Your task to perform on an android device: turn off wifi Image 0: 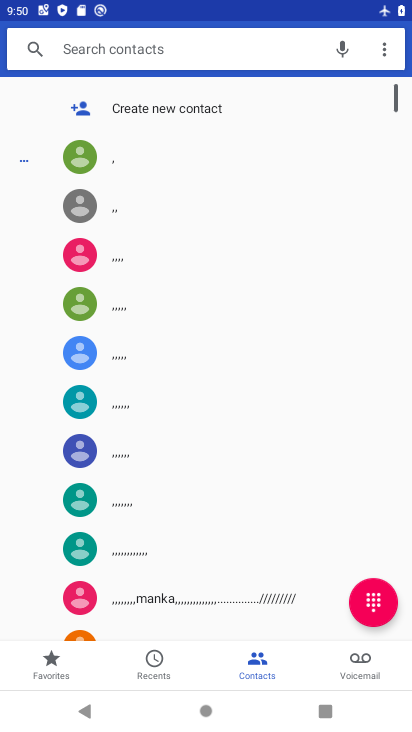
Step 0: press home button
Your task to perform on an android device: turn off wifi Image 1: 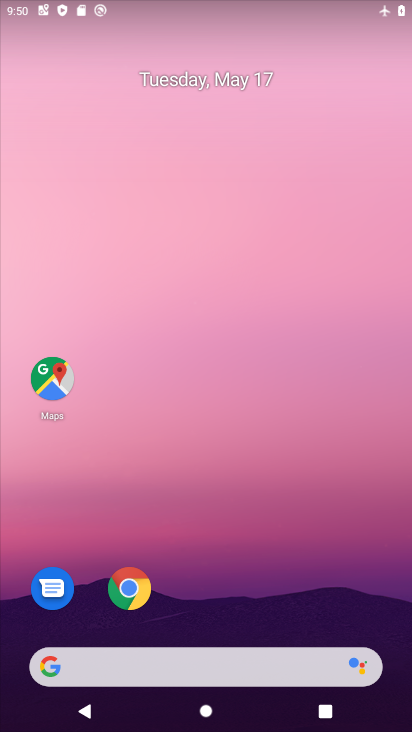
Step 1: drag from (211, 637) to (336, 24)
Your task to perform on an android device: turn off wifi Image 2: 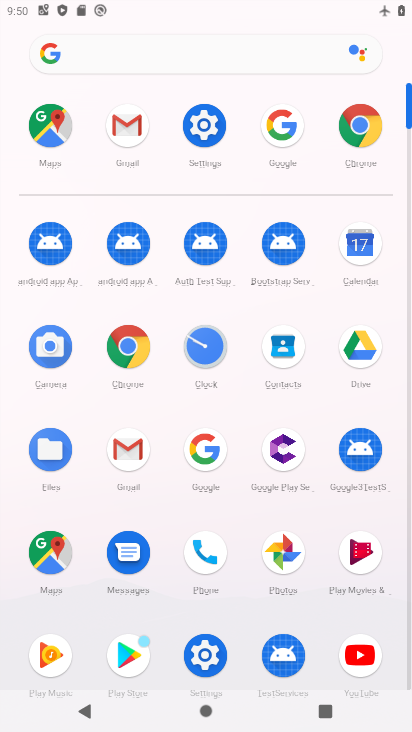
Step 2: click (217, 137)
Your task to perform on an android device: turn off wifi Image 3: 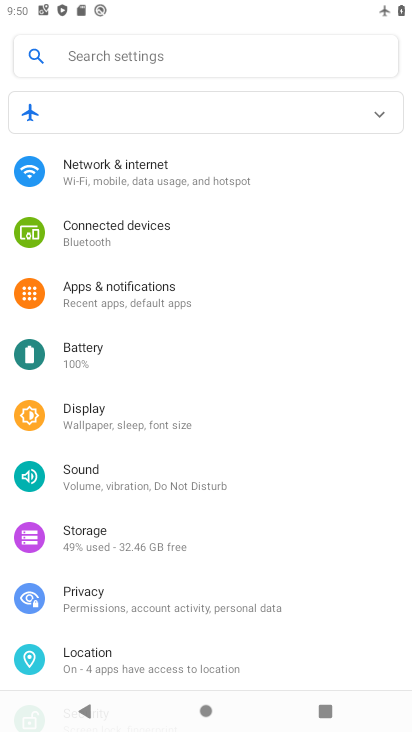
Step 3: click (175, 182)
Your task to perform on an android device: turn off wifi Image 4: 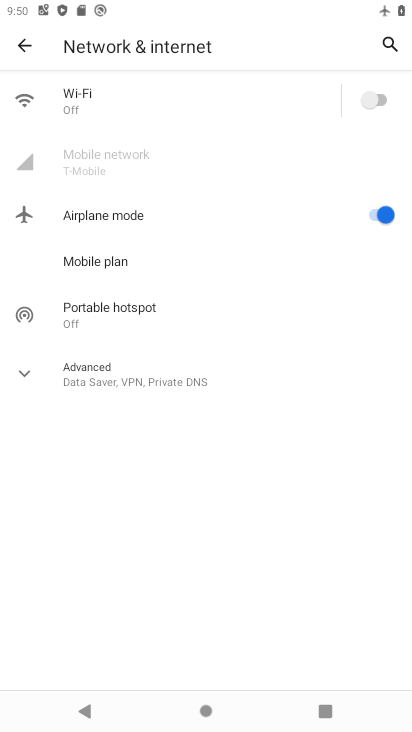
Step 4: click (259, 110)
Your task to perform on an android device: turn off wifi Image 5: 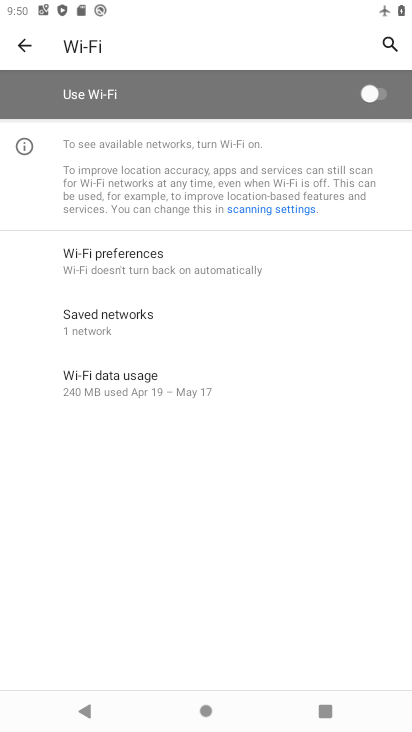
Step 5: task complete